Your task to perform on an android device: turn off airplane mode Image 0: 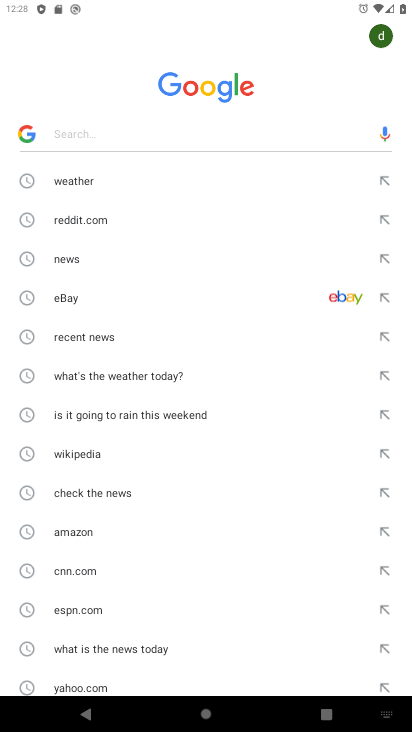
Step 0: press home button
Your task to perform on an android device: turn off airplane mode Image 1: 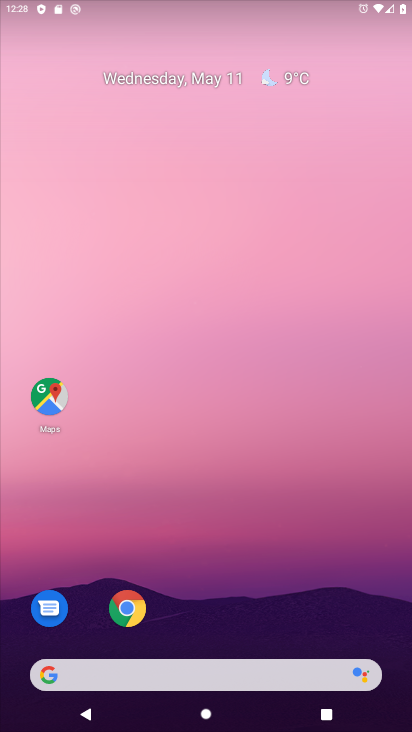
Step 1: drag from (224, 637) to (177, 145)
Your task to perform on an android device: turn off airplane mode Image 2: 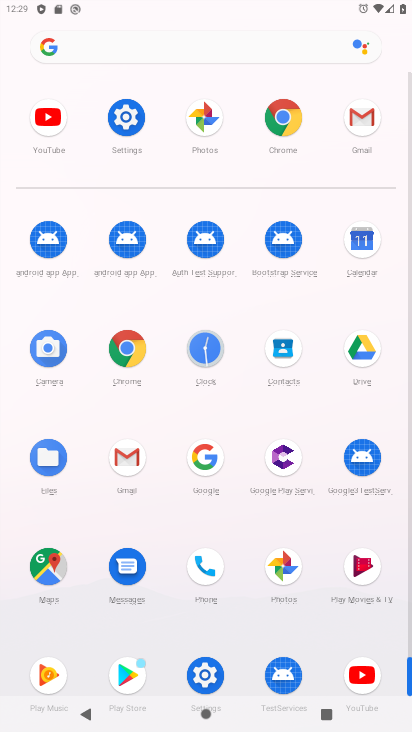
Step 2: click (116, 104)
Your task to perform on an android device: turn off airplane mode Image 3: 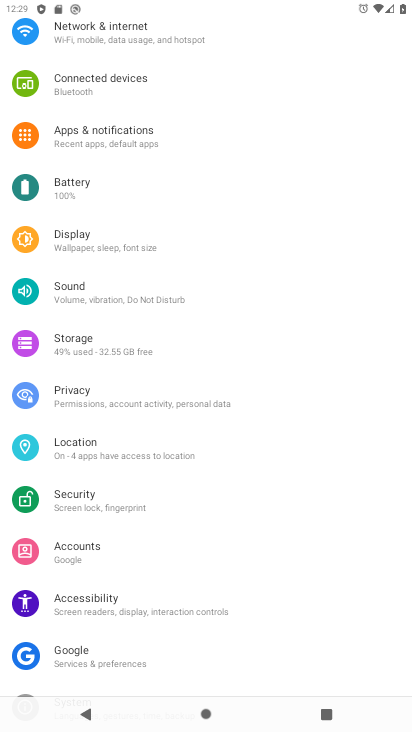
Step 3: drag from (116, 106) to (80, 331)
Your task to perform on an android device: turn off airplane mode Image 4: 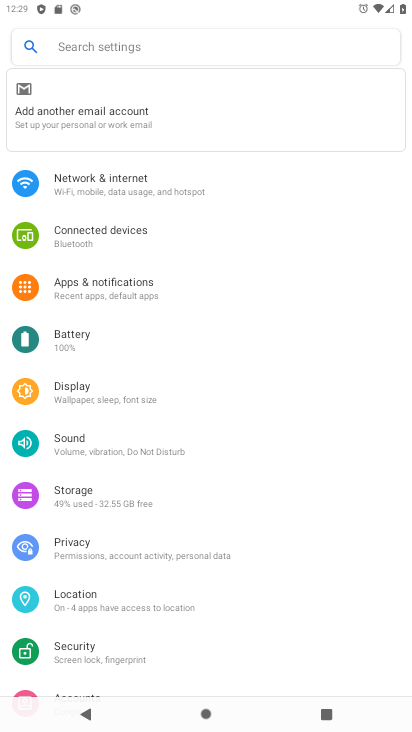
Step 4: click (223, 185)
Your task to perform on an android device: turn off airplane mode Image 5: 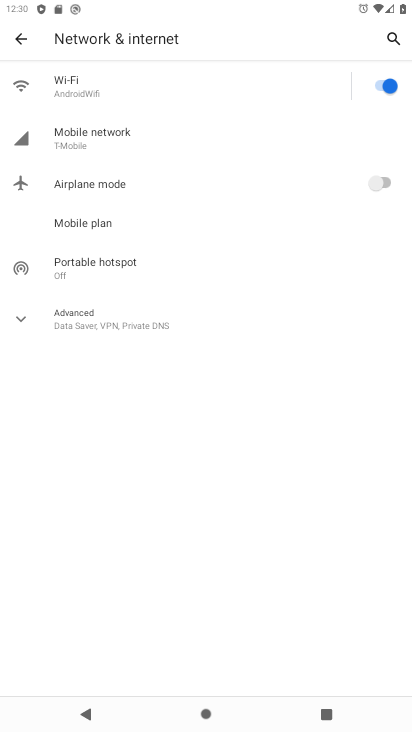
Step 5: task complete